Your task to perform on an android device: check storage Image 0: 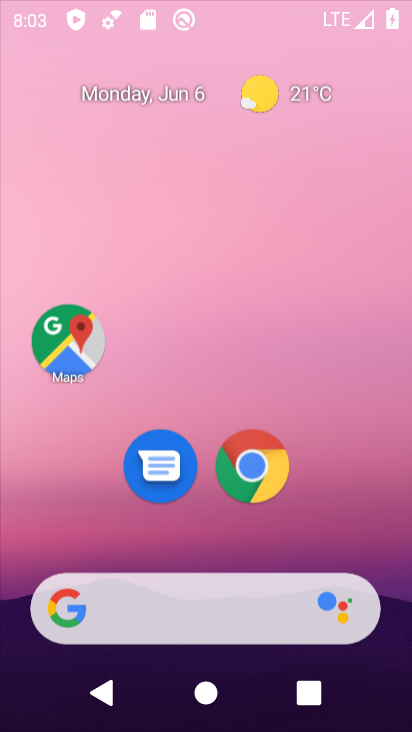
Step 0: click (300, 158)
Your task to perform on an android device: check storage Image 1: 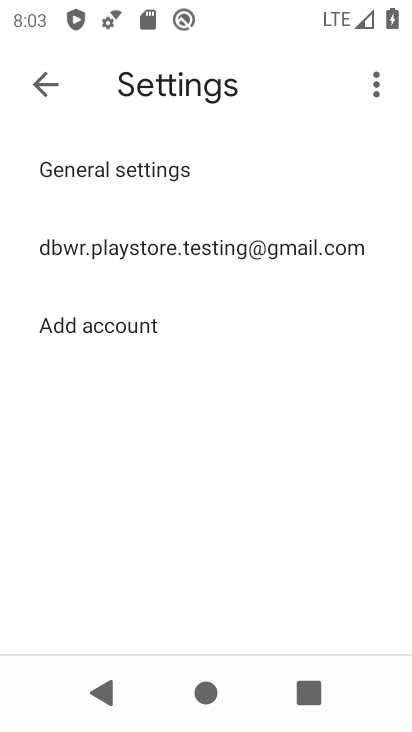
Step 1: press home button
Your task to perform on an android device: check storage Image 2: 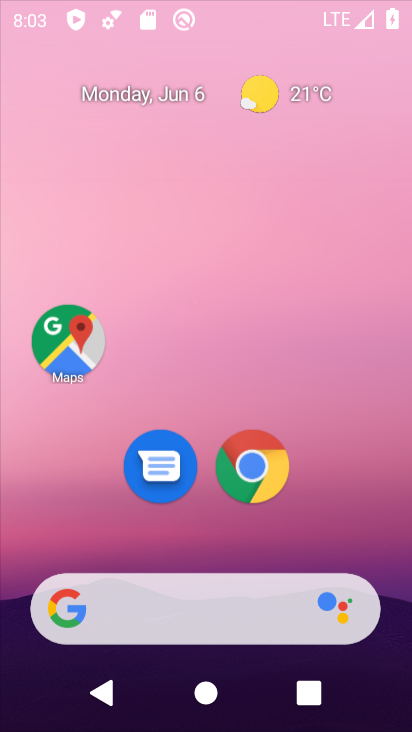
Step 2: drag from (167, 550) to (259, 107)
Your task to perform on an android device: check storage Image 3: 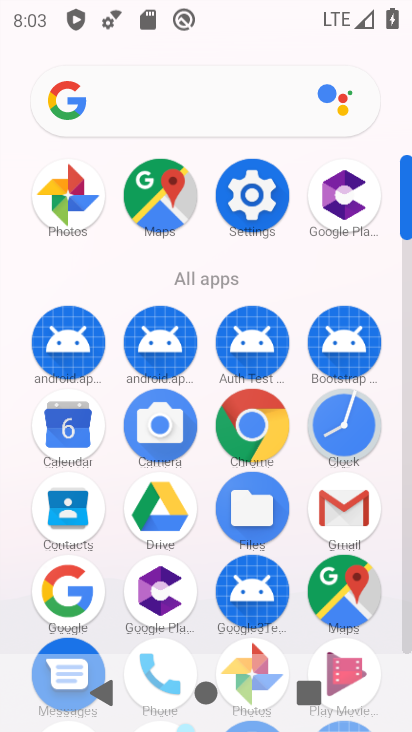
Step 3: click (257, 228)
Your task to perform on an android device: check storage Image 4: 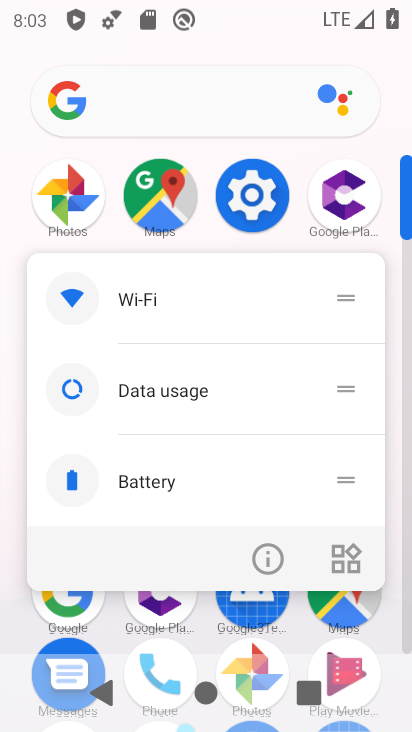
Step 4: click (251, 570)
Your task to perform on an android device: check storage Image 5: 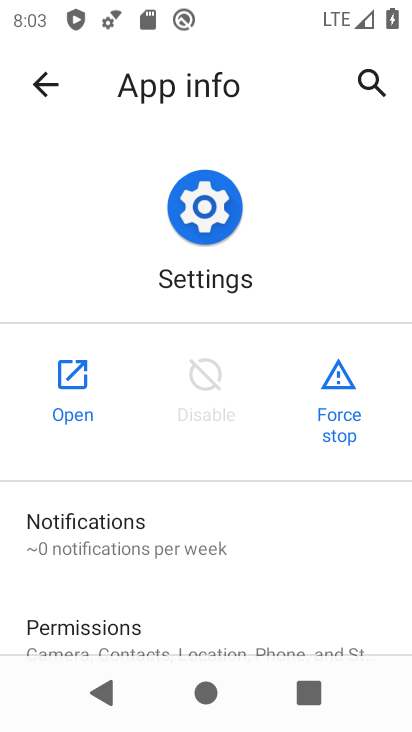
Step 5: click (90, 365)
Your task to perform on an android device: check storage Image 6: 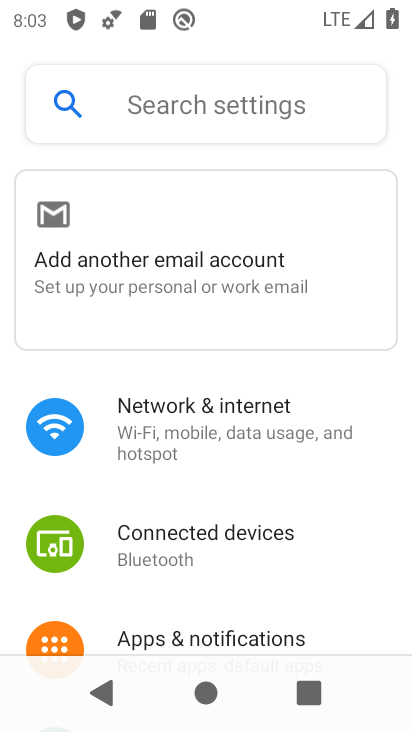
Step 6: drag from (233, 552) to (409, 98)
Your task to perform on an android device: check storage Image 7: 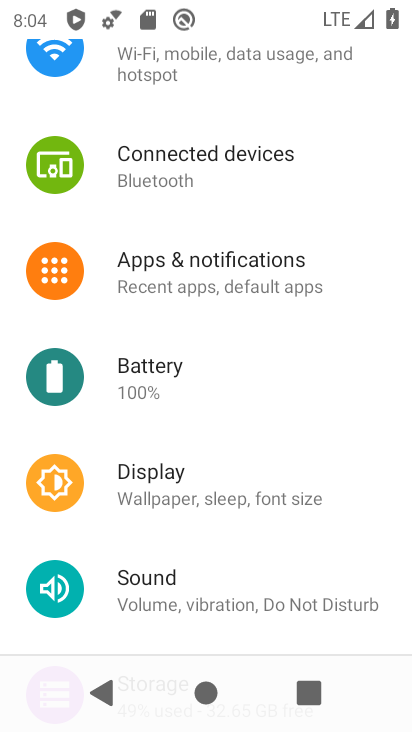
Step 7: drag from (234, 583) to (301, 394)
Your task to perform on an android device: check storage Image 8: 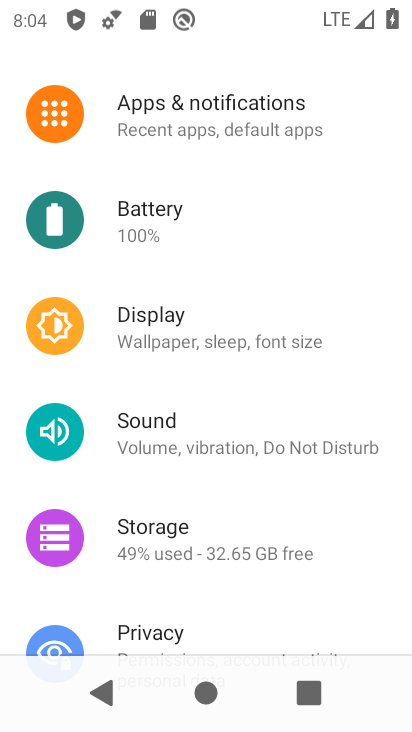
Step 8: click (200, 534)
Your task to perform on an android device: check storage Image 9: 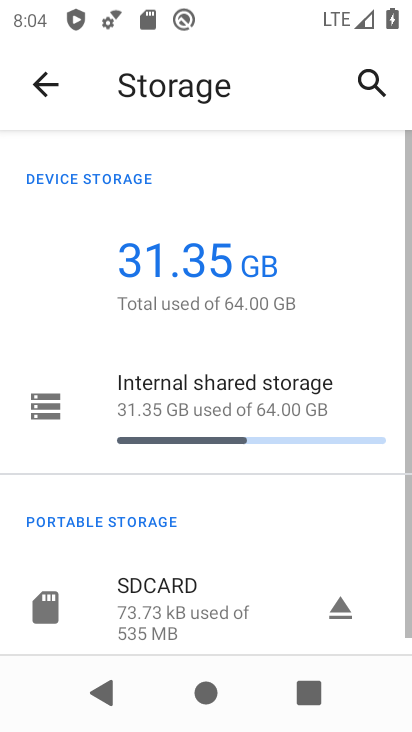
Step 9: task complete